Your task to perform on an android device: turn on the 24-hour format for clock Image 0: 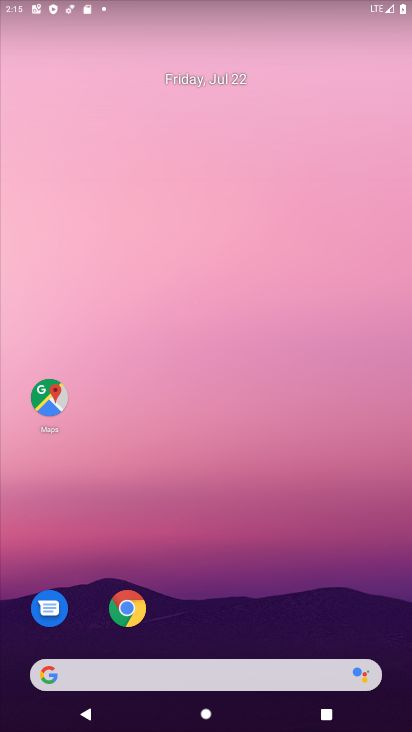
Step 0: drag from (389, 635) to (330, 77)
Your task to perform on an android device: turn on the 24-hour format for clock Image 1: 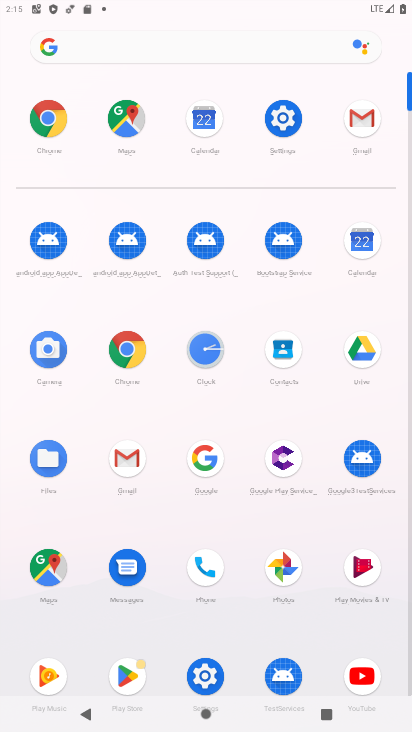
Step 1: click (293, 111)
Your task to perform on an android device: turn on the 24-hour format for clock Image 2: 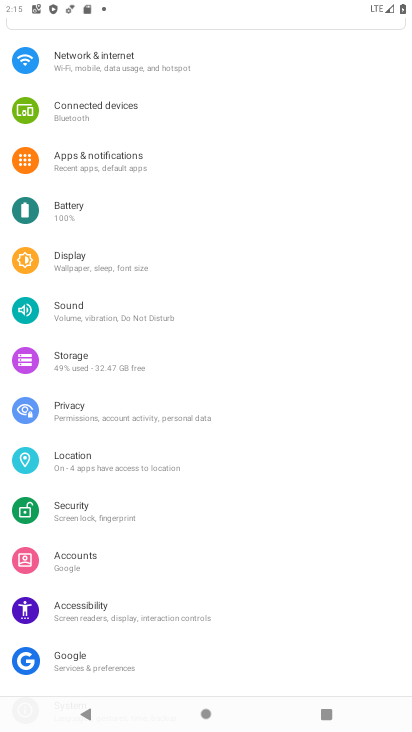
Step 2: task complete